Your task to perform on an android device: Search for bose soundsport free on costco, select the first entry, and add it to the cart. Image 0: 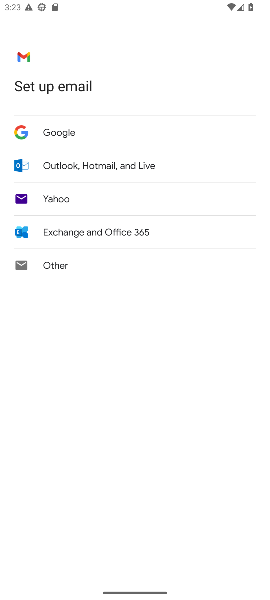
Step 0: press home button
Your task to perform on an android device: Search for bose soundsport free on costco, select the first entry, and add it to the cart. Image 1: 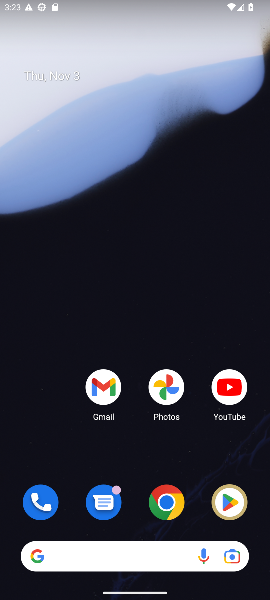
Step 1: drag from (107, 450) to (139, 138)
Your task to perform on an android device: Search for bose soundsport free on costco, select the first entry, and add it to the cart. Image 2: 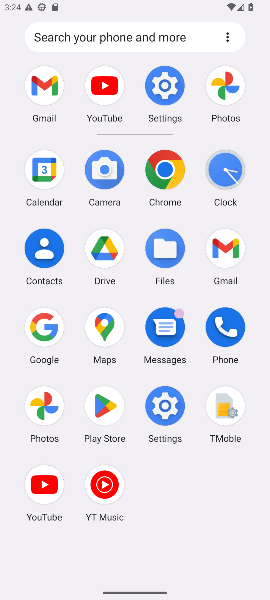
Step 2: click (49, 334)
Your task to perform on an android device: Search for bose soundsport free on costco, select the first entry, and add it to the cart. Image 3: 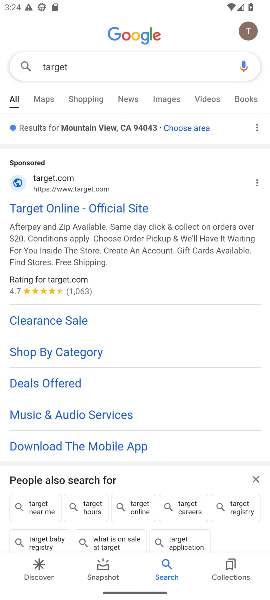
Step 3: click (172, 72)
Your task to perform on an android device: Search for bose soundsport free on costco, select the first entry, and add it to the cart. Image 4: 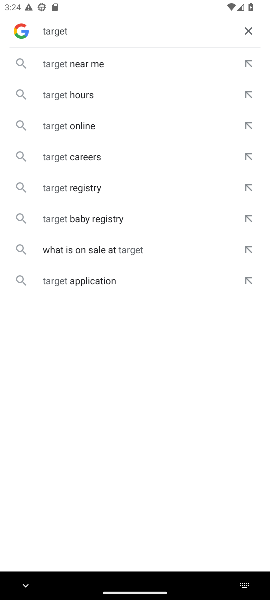
Step 4: click (246, 29)
Your task to perform on an android device: Search for bose soundsport free on costco, select the first entry, and add it to the cart. Image 5: 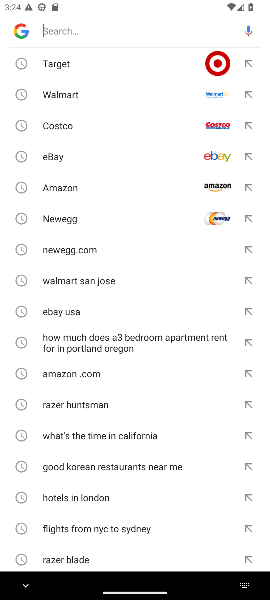
Step 5: type "costco"
Your task to perform on an android device: Search for bose soundsport free on costco, select the first entry, and add it to the cart. Image 6: 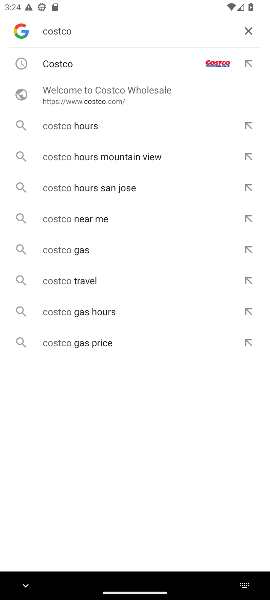
Step 6: click (156, 85)
Your task to perform on an android device: Search for bose soundsport free on costco, select the first entry, and add it to the cart. Image 7: 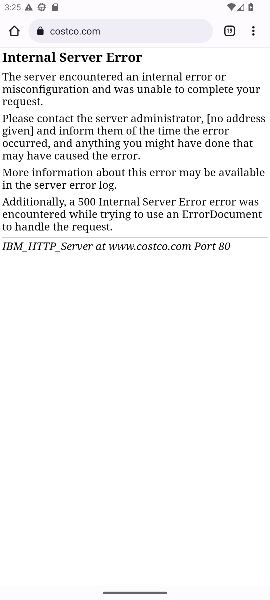
Step 7: task complete